Your task to perform on an android device: open chrome privacy settings Image 0: 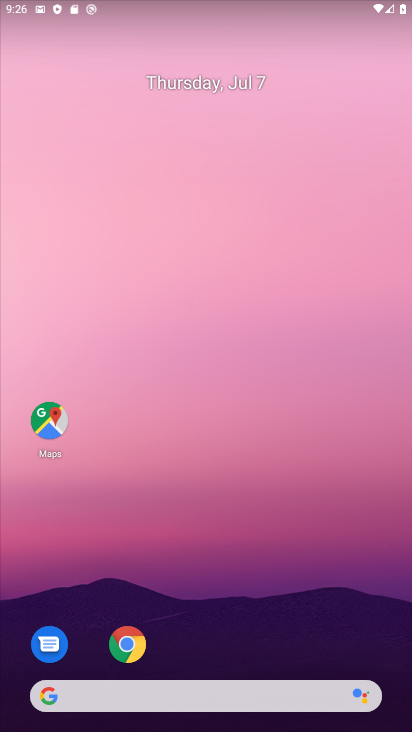
Step 0: click (123, 648)
Your task to perform on an android device: open chrome privacy settings Image 1: 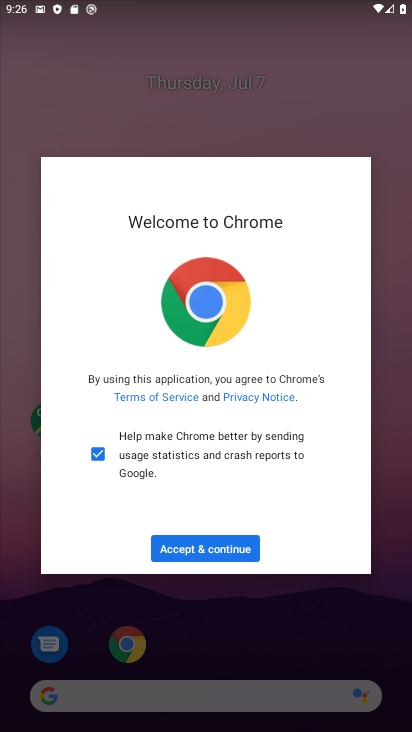
Step 1: click (197, 549)
Your task to perform on an android device: open chrome privacy settings Image 2: 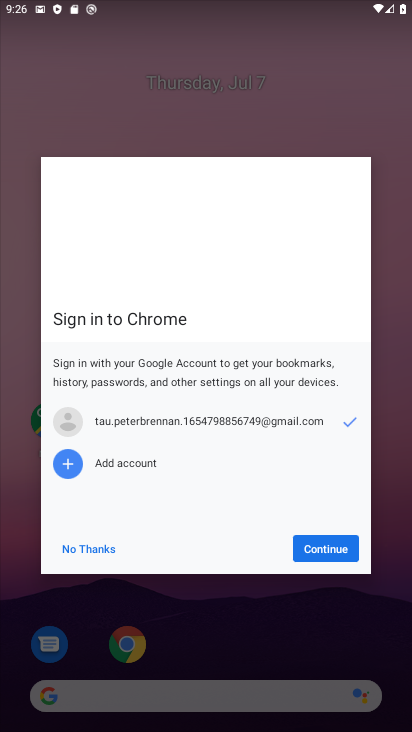
Step 2: click (343, 549)
Your task to perform on an android device: open chrome privacy settings Image 3: 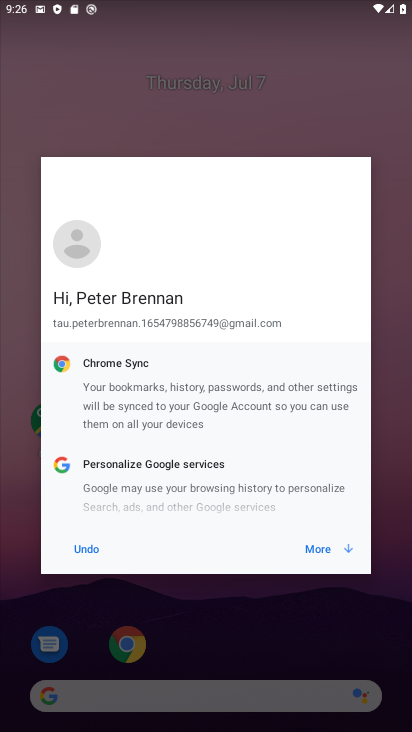
Step 3: click (320, 549)
Your task to perform on an android device: open chrome privacy settings Image 4: 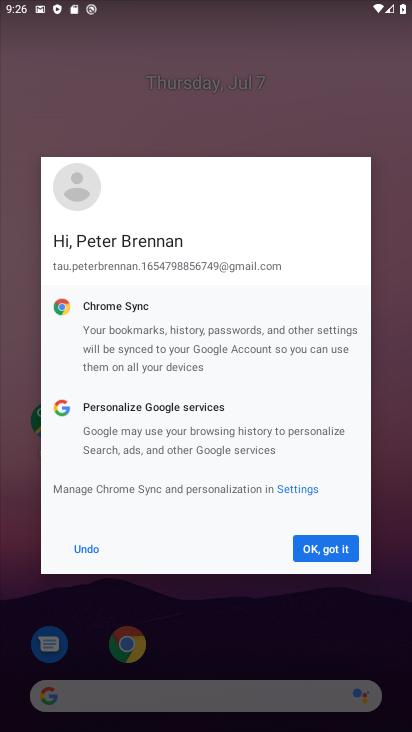
Step 4: click (320, 549)
Your task to perform on an android device: open chrome privacy settings Image 5: 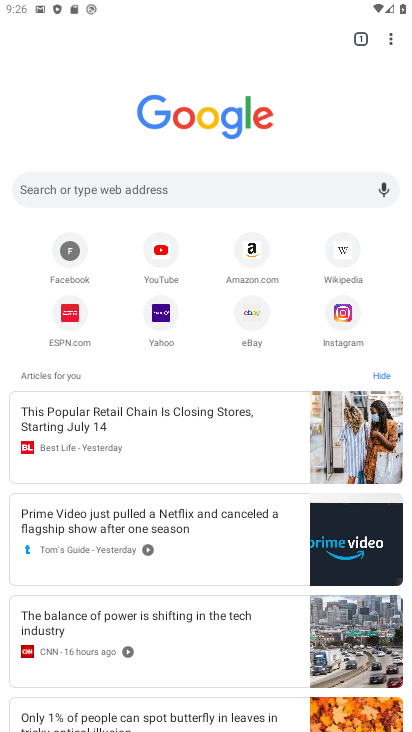
Step 5: click (386, 42)
Your task to perform on an android device: open chrome privacy settings Image 6: 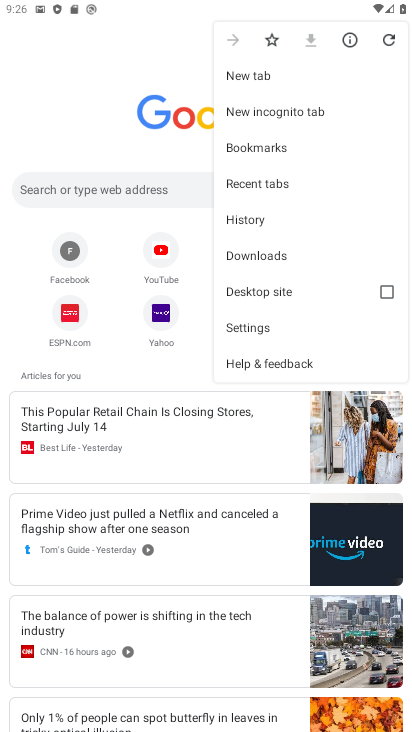
Step 6: click (270, 326)
Your task to perform on an android device: open chrome privacy settings Image 7: 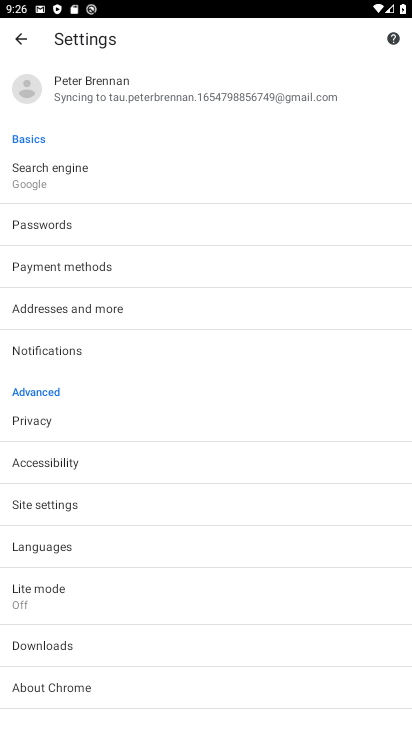
Step 7: click (39, 422)
Your task to perform on an android device: open chrome privacy settings Image 8: 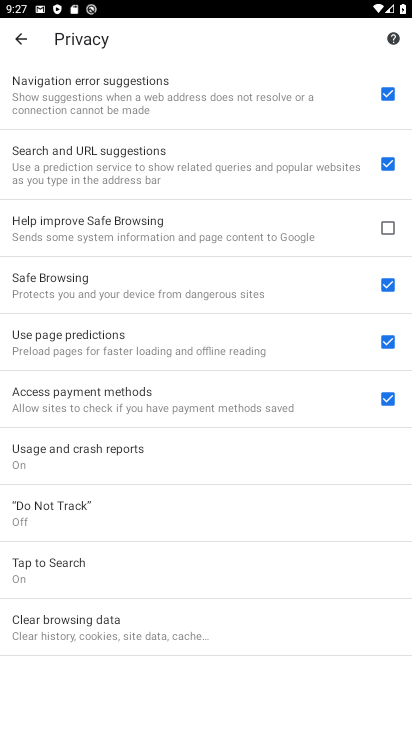
Step 8: task complete